Your task to perform on an android device: check google app version Image 0: 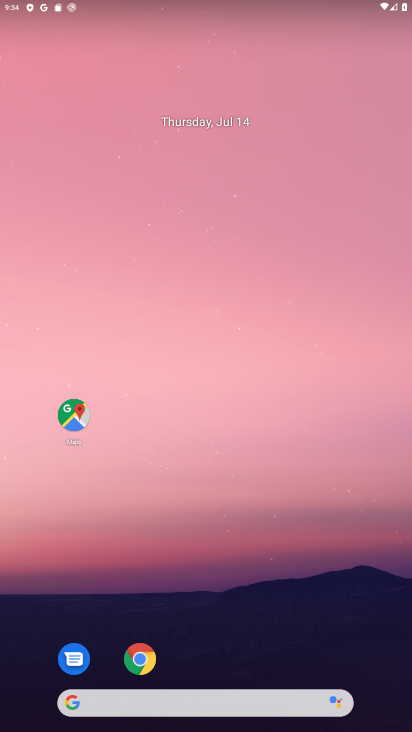
Step 0: drag from (325, 583) to (255, 159)
Your task to perform on an android device: check google app version Image 1: 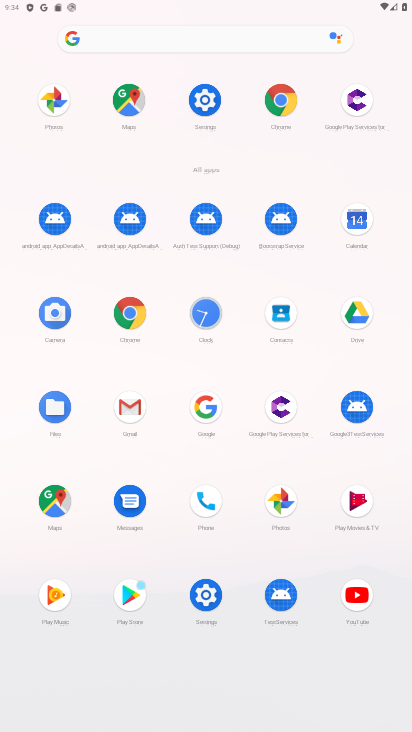
Step 1: click (203, 415)
Your task to perform on an android device: check google app version Image 2: 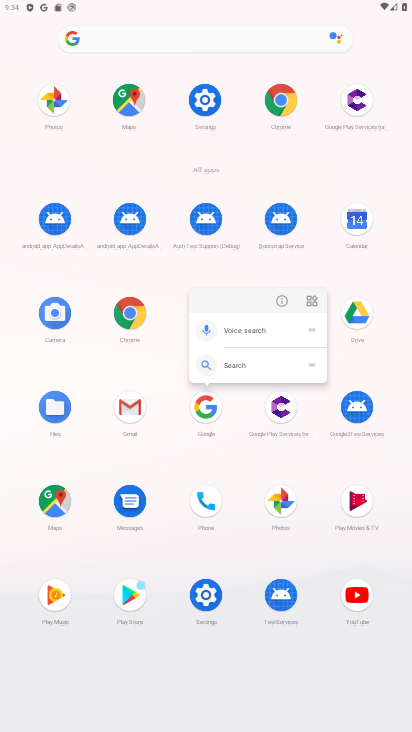
Step 2: click (277, 304)
Your task to perform on an android device: check google app version Image 3: 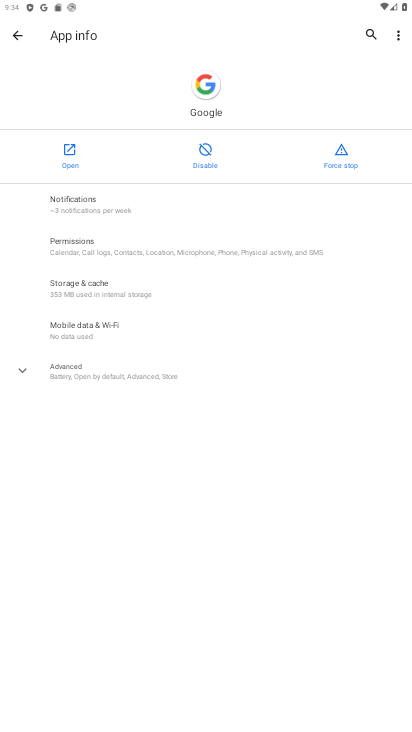
Step 3: click (124, 379)
Your task to perform on an android device: check google app version Image 4: 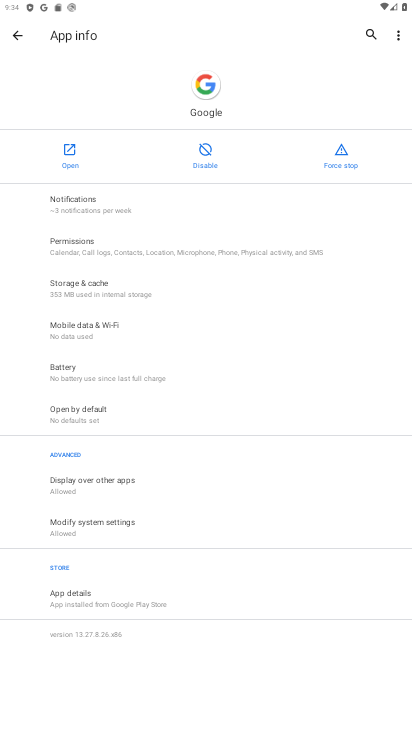
Step 4: task complete